Your task to perform on an android device: toggle pop-ups in chrome Image 0: 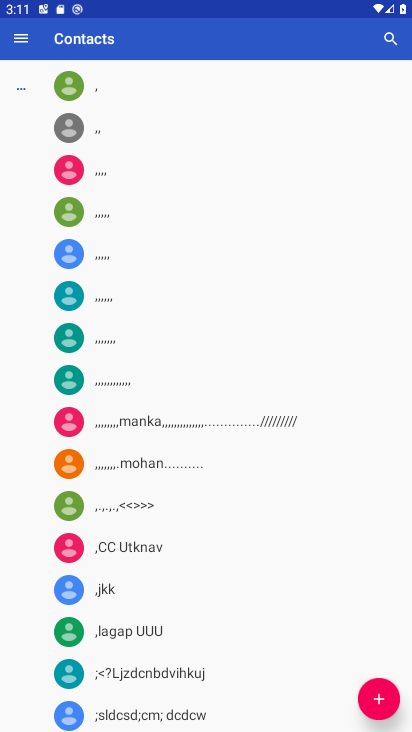
Step 0: press home button
Your task to perform on an android device: toggle pop-ups in chrome Image 1: 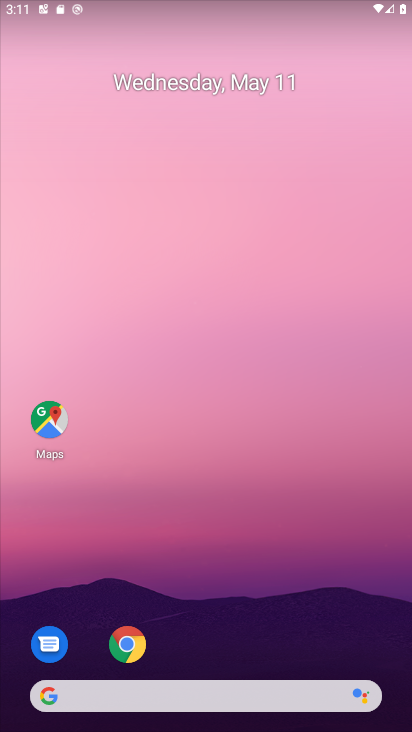
Step 1: click (128, 646)
Your task to perform on an android device: toggle pop-ups in chrome Image 2: 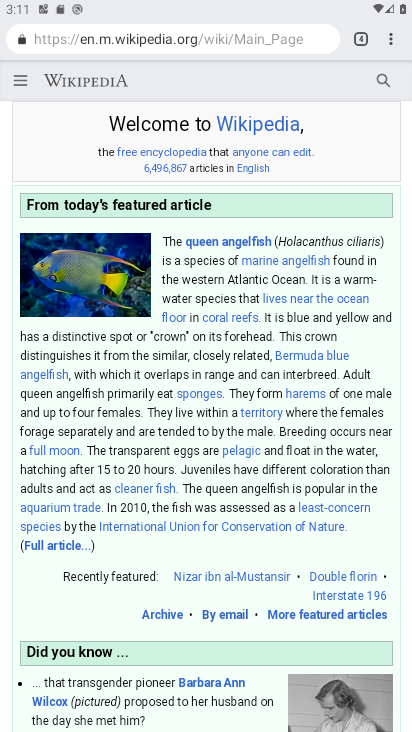
Step 2: click (385, 36)
Your task to perform on an android device: toggle pop-ups in chrome Image 3: 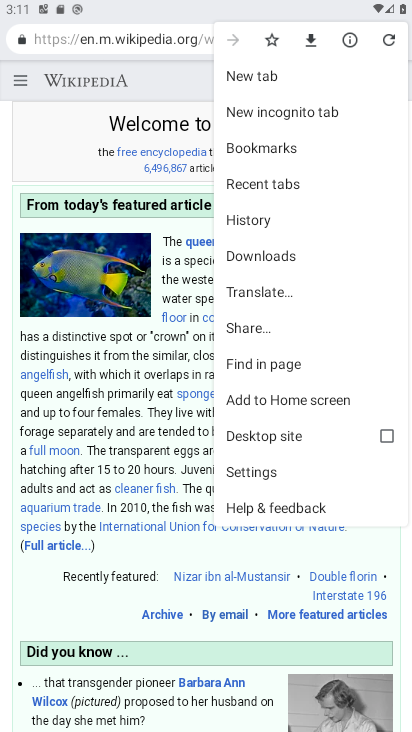
Step 3: click (245, 472)
Your task to perform on an android device: toggle pop-ups in chrome Image 4: 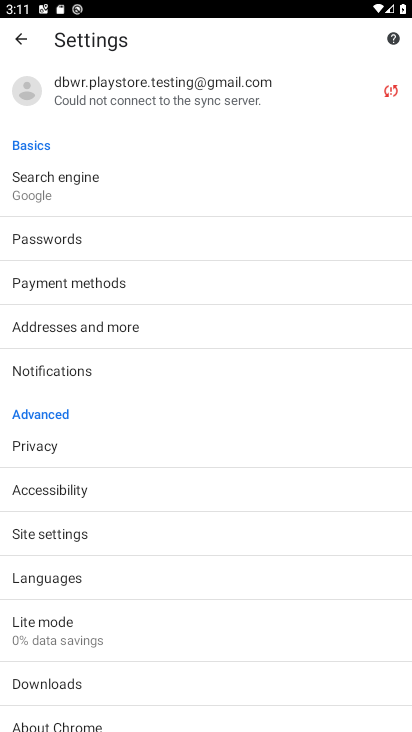
Step 4: click (44, 536)
Your task to perform on an android device: toggle pop-ups in chrome Image 5: 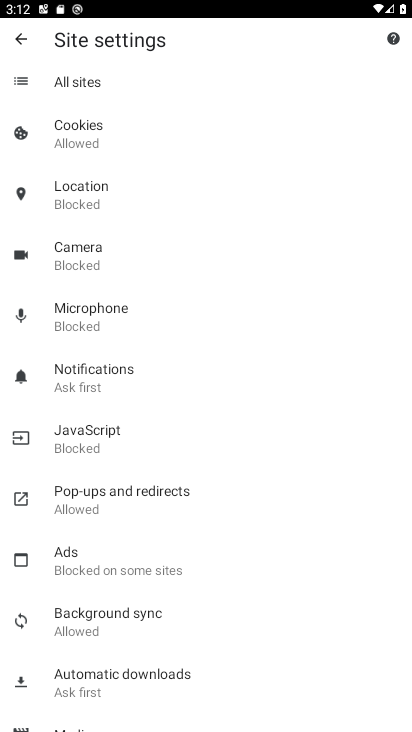
Step 5: click (120, 484)
Your task to perform on an android device: toggle pop-ups in chrome Image 6: 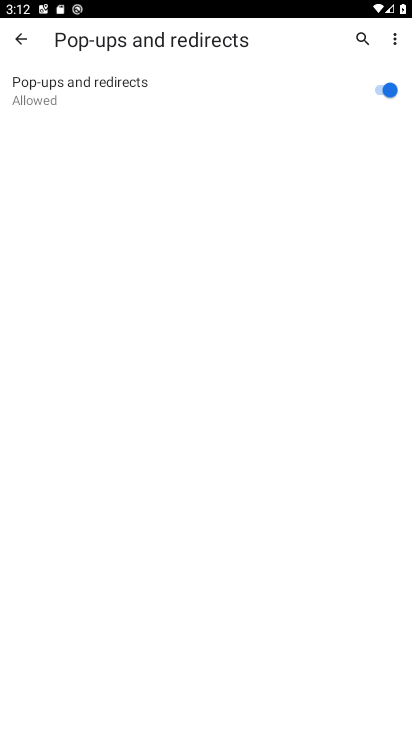
Step 6: click (378, 94)
Your task to perform on an android device: toggle pop-ups in chrome Image 7: 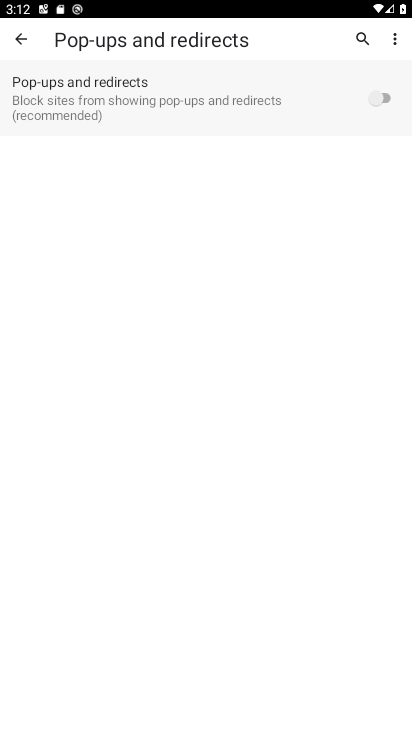
Step 7: task complete